Your task to perform on an android device: Go to Yahoo.com Image 0: 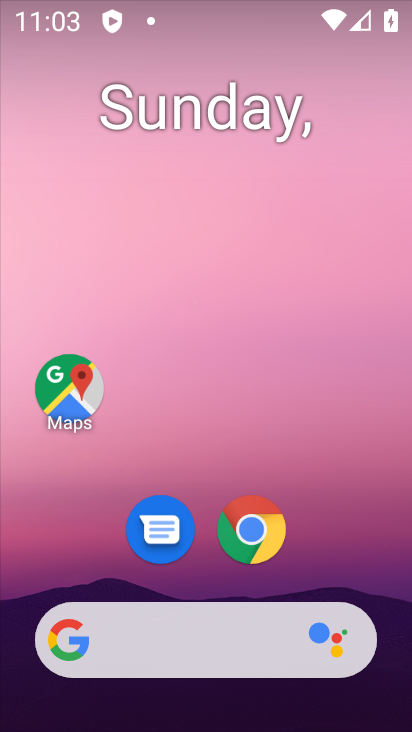
Step 0: drag from (408, 570) to (351, 68)
Your task to perform on an android device: Go to Yahoo.com Image 1: 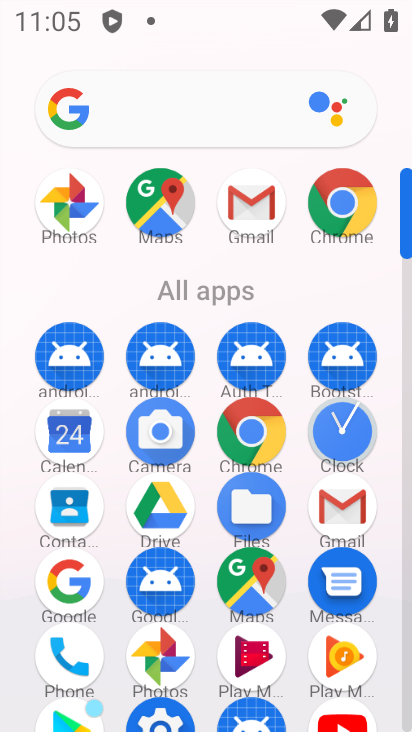
Step 1: click (250, 449)
Your task to perform on an android device: Go to Yahoo.com Image 2: 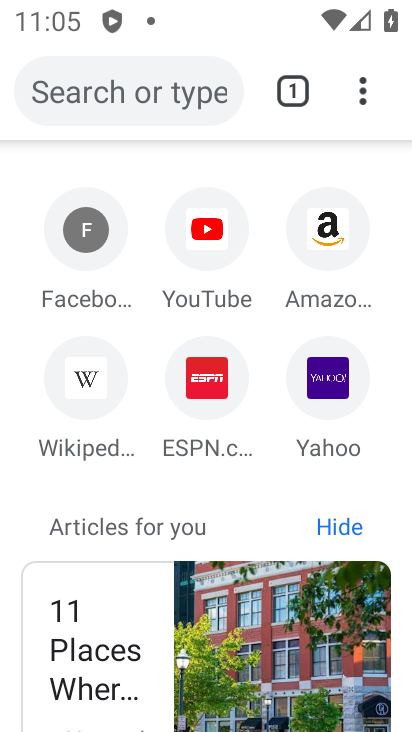
Step 2: click (336, 409)
Your task to perform on an android device: Go to Yahoo.com Image 3: 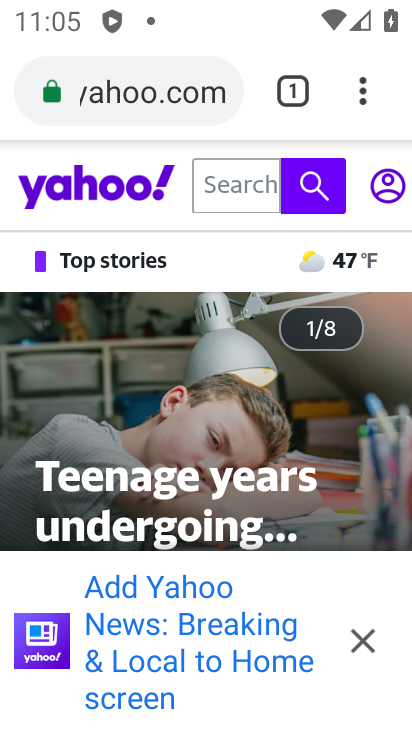
Step 3: task complete